Your task to perform on an android device: open the mobile data screen to see how much data has been used Image 0: 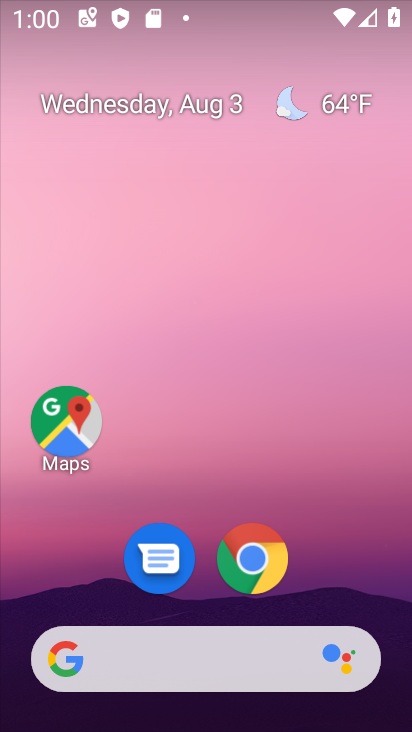
Step 0: drag from (355, 613) to (265, 130)
Your task to perform on an android device: open the mobile data screen to see how much data has been used Image 1: 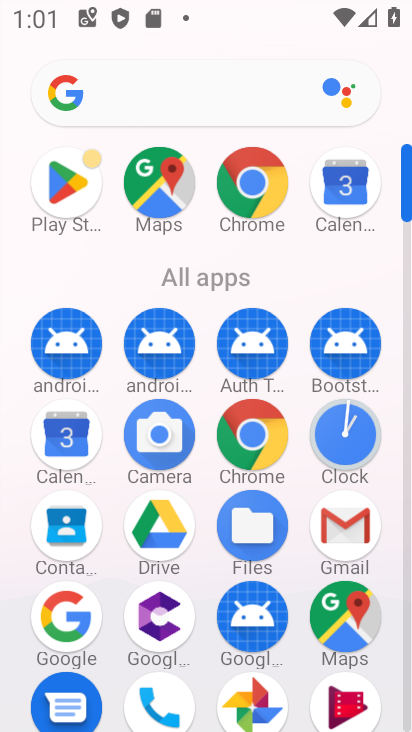
Step 1: drag from (369, 10) to (327, 675)
Your task to perform on an android device: open the mobile data screen to see how much data has been used Image 2: 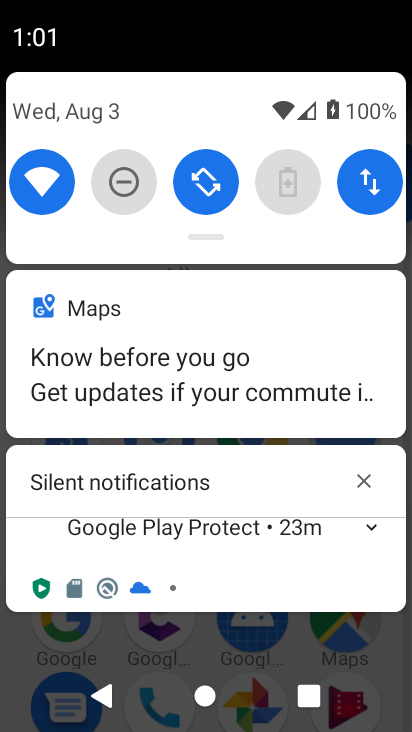
Step 2: click (379, 191)
Your task to perform on an android device: open the mobile data screen to see how much data has been used Image 3: 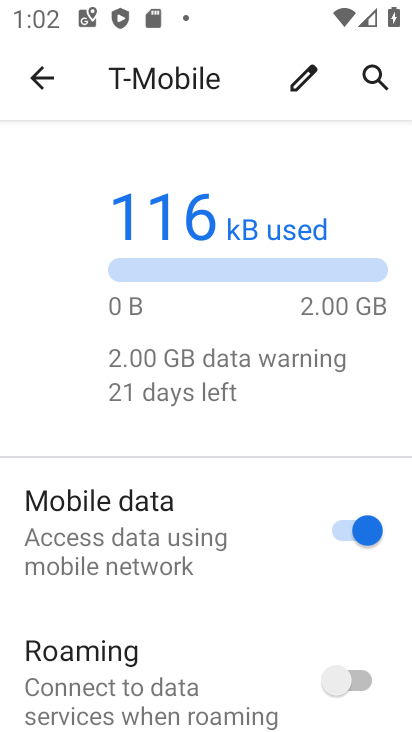
Step 3: task complete